Your task to perform on an android device: delete browsing data in the chrome app Image 0: 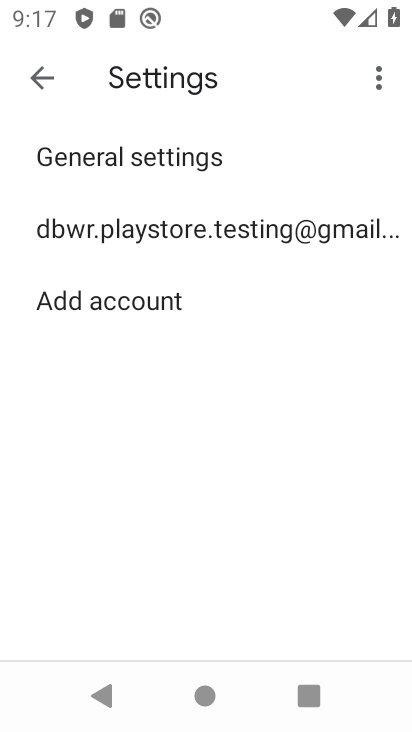
Step 0: press home button
Your task to perform on an android device: delete browsing data in the chrome app Image 1: 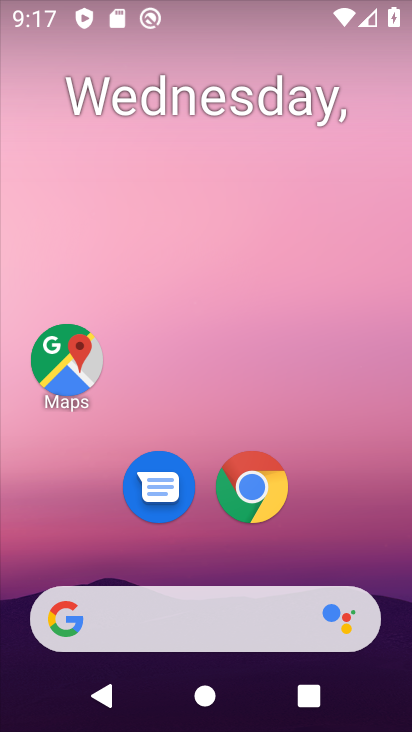
Step 1: drag from (125, 541) to (156, 140)
Your task to perform on an android device: delete browsing data in the chrome app Image 2: 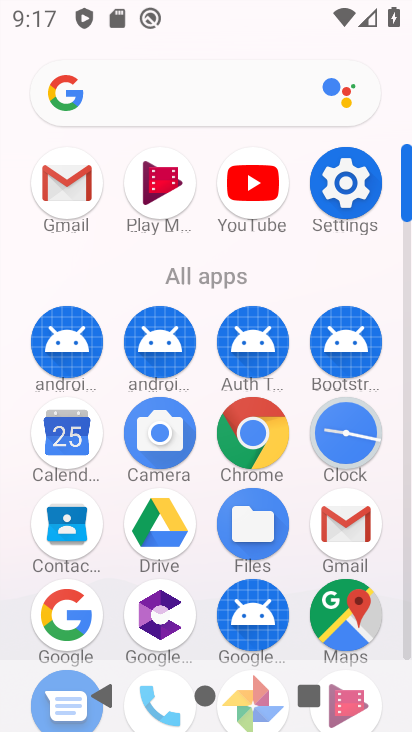
Step 2: click (341, 523)
Your task to perform on an android device: delete browsing data in the chrome app Image 3: 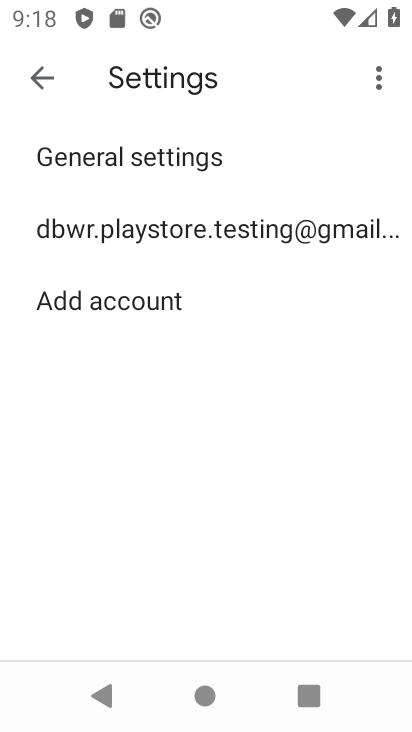
Step 3: press home button
Your task to perform on an android device: delete browsing data in the chrome app Image 4: 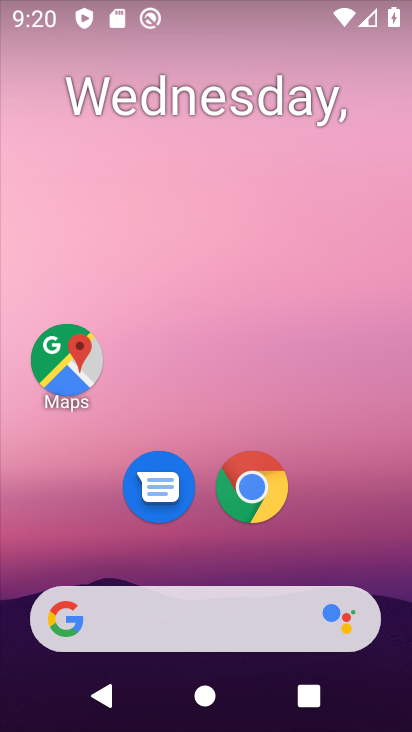
Step 4: click (267, 493)
Your task to perform on an android device: delete browsing data in the chrome app Image 5: 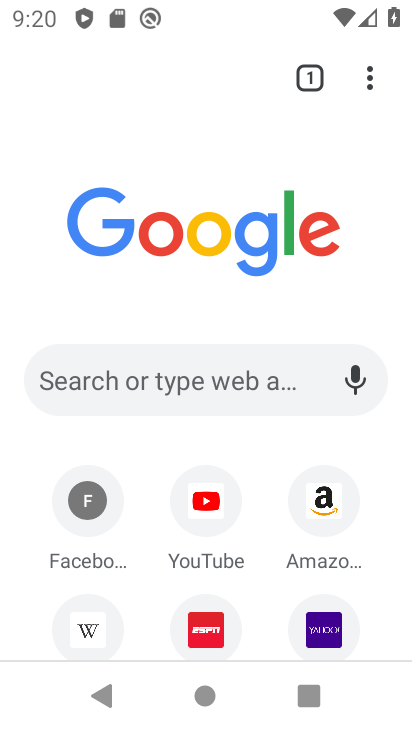
Step 5: click (369, 72)
Your task to perform on an android device: delete browsing data in the chrome app Image 6: 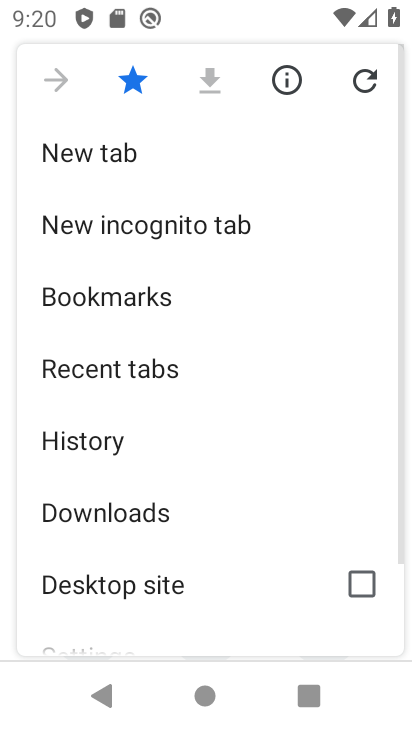
Step 6: click (94, 452)
Your task to perform on an android device: delete browsing data in the chrome app Image 7: 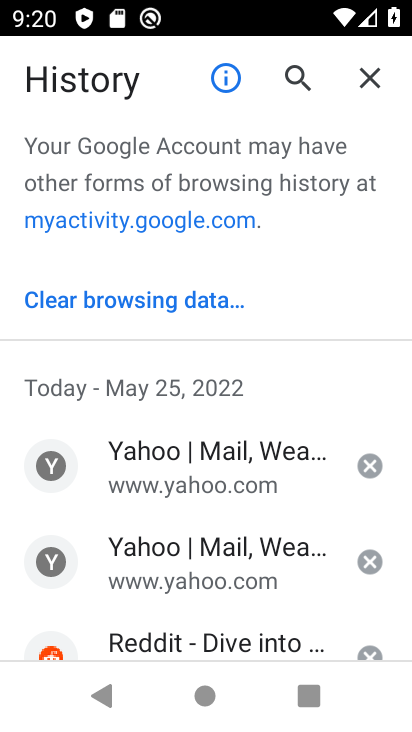
Step 7: click (178, 302)
Your task to perform on an android device: delete browsing data in the chrome app Image 8: 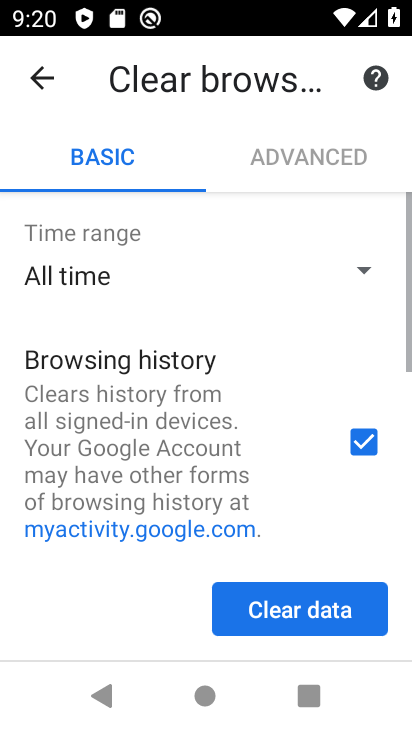
Step 8: click (256, 617)
Your task to perform on an android device: delete browsing data in the chrome app Image 9: 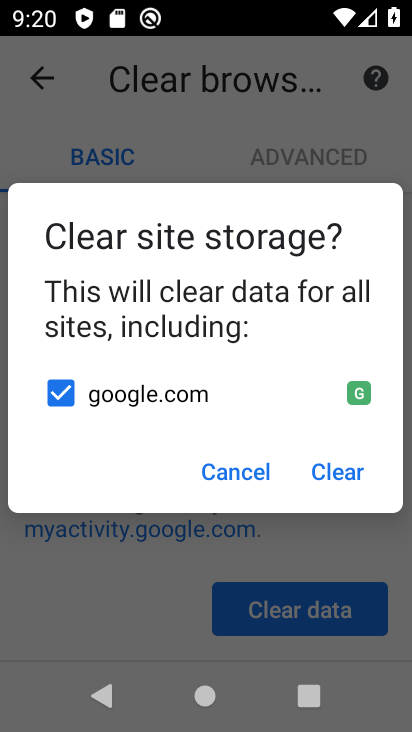
Step 9: click (343, 473)
Your task to perform on an android device: delete browsing data in the chrome app Image 10: 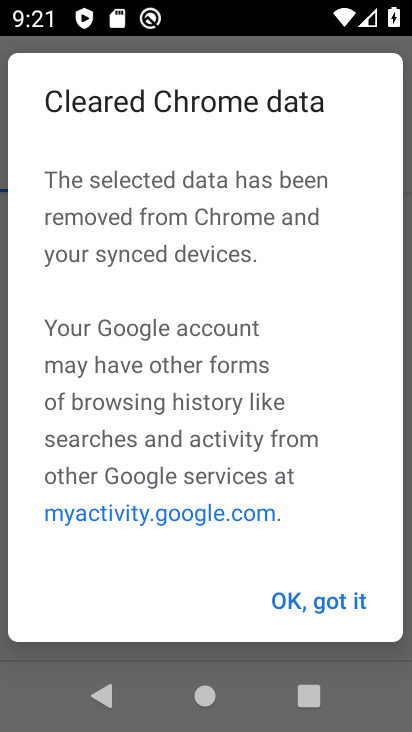
Step 10: click (345, 596)
Your task to perform on an android device: delete browsing data in the chrome app Image 11: 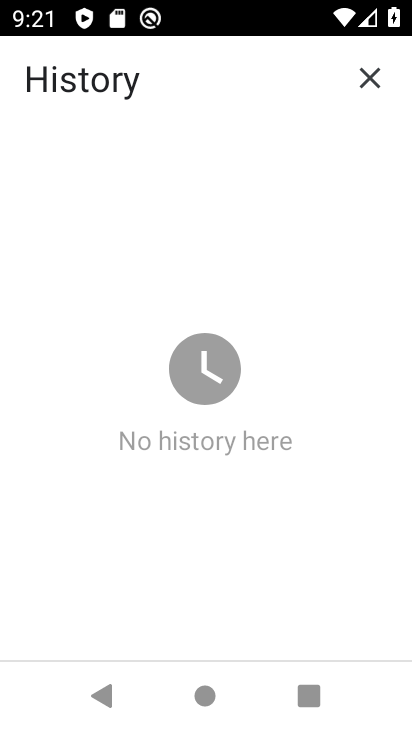
Step 11: task complete